Your task to perform on an android device: Do I have any events this weekend? Image 0: 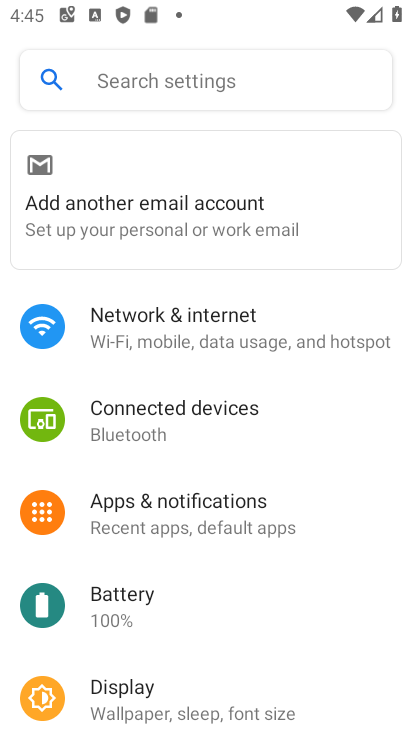
Step 0: press home button
Your task to perform on an android device: Do I have any events this weekend? Image 1: 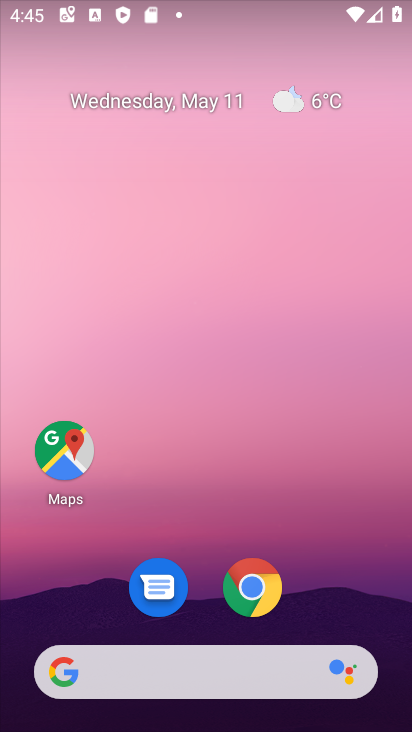
Step 1: click (192, 100)
Your task to perform on an android device: Do I have any events this weekend? Image 2: 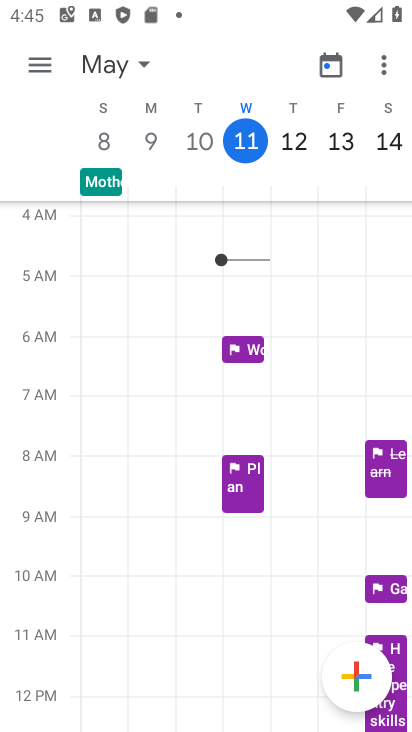
Step 2: click (44, 62)
Your task to perform on an android device: Do I have any events this weekend? Image 3: 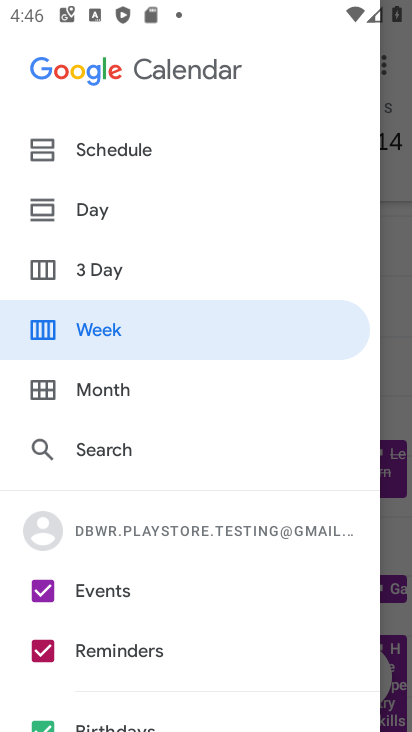
Step 3: drag from (221, 647) to (239, 357)
Your task to perform on an android device: Do I have any events this weekend? Image 4: 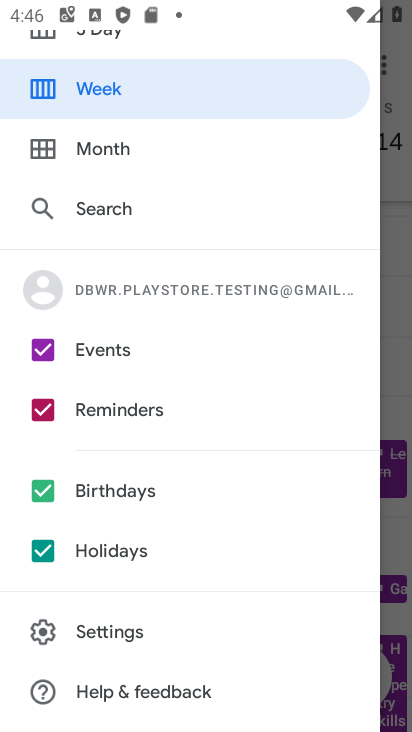
Step 4: click (46, 400)
Your task to perform on an android device: Do I have any events this weekend? Image 5: 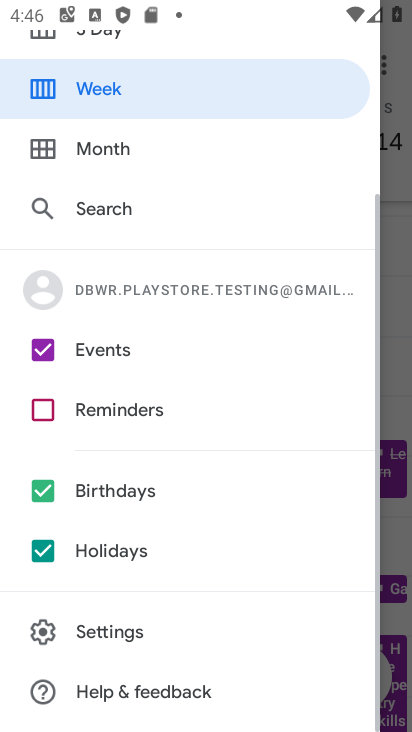
Step 5: click (49, 491)
Your task to perform on an android device: Do I have any events this weekend? Image 6: 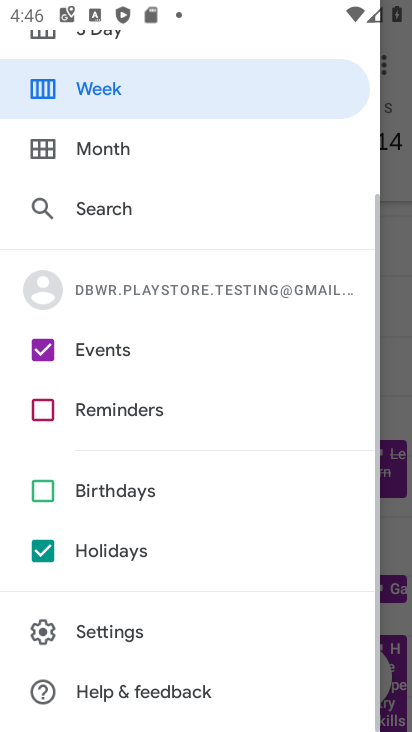
Step 6: click (38, 545)
Your task to perform on an android device: Do I have any events this weekend? Image 7: 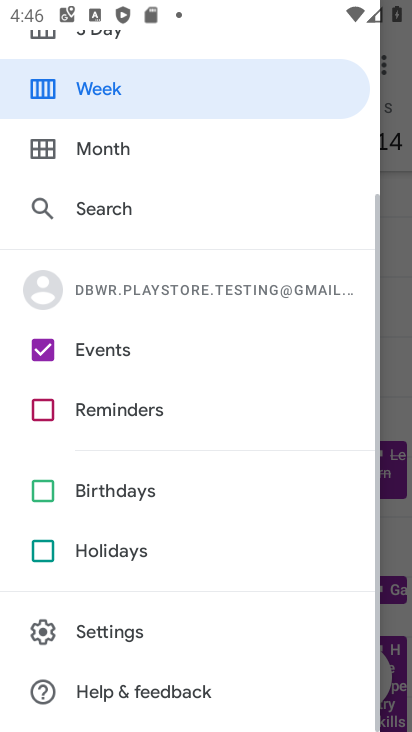
Step 7: drag from (333, 215) to (371, 421)
Your task to perform on an android device: Do I have any events this weekend? Image 8: 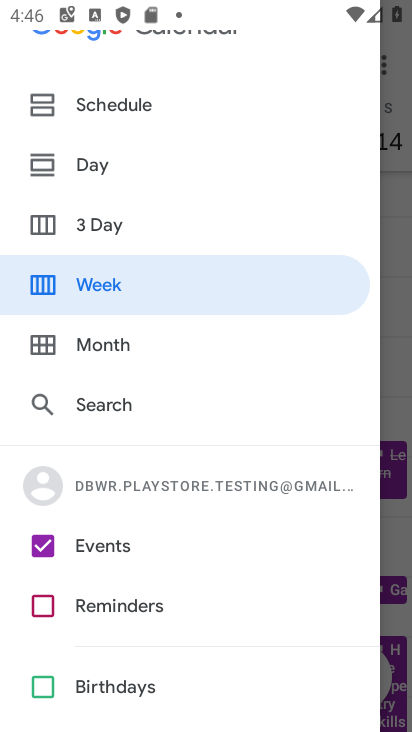
Step 8: click (85, 219)
Your task to perform on an android device: Do I have any events this weekend? Image 9: 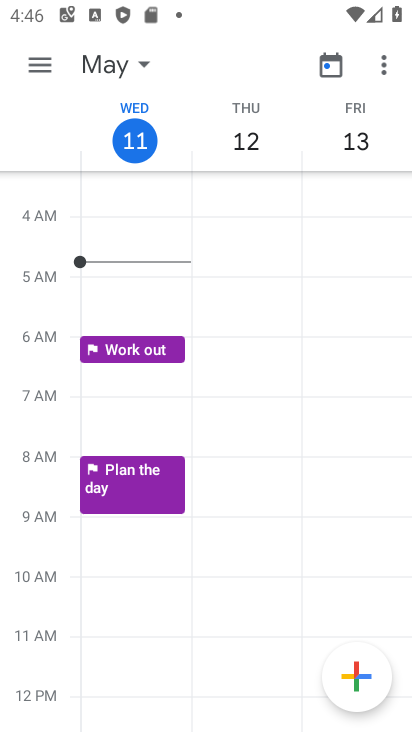
Step 9: task complete